Your task to perform on an android device: Search for sushi restaurants on Maps Image 0: 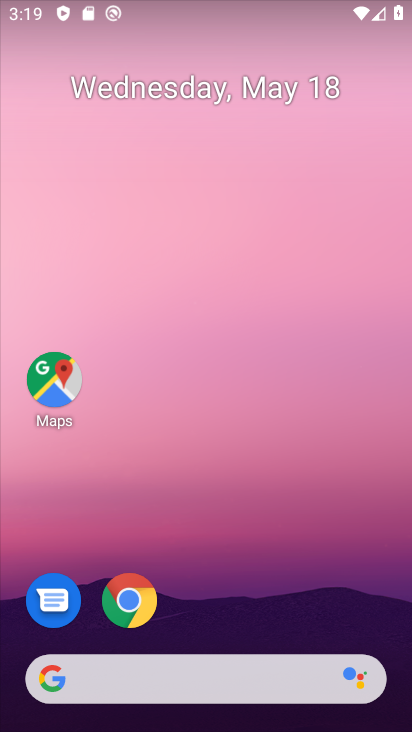
Step 0: click (54, 379)
Your task to perform on an android device: Search for sushi restaurants on Maps Image 1: 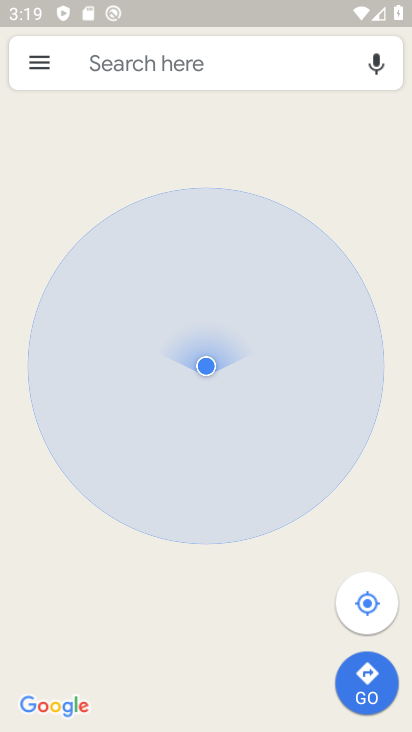
Step 1: click (176, 66)
Your task to perform on an android device: Search for sushi restaurants on Maps Image 2: 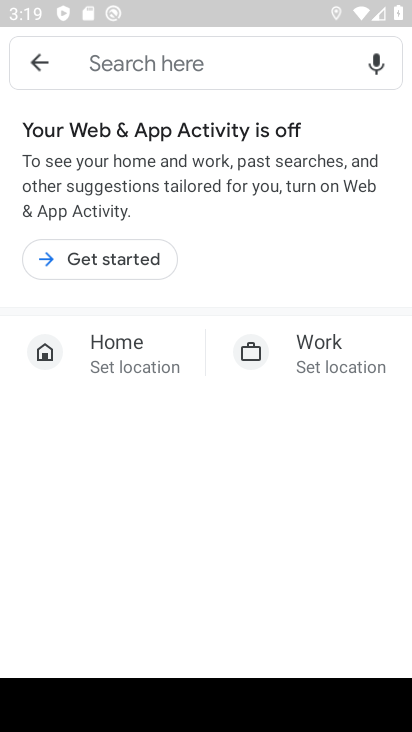
Step 2: type "sushi restaurants"
Your task to perform on an android device: Search for sushi restaurants on Maps Image 3: 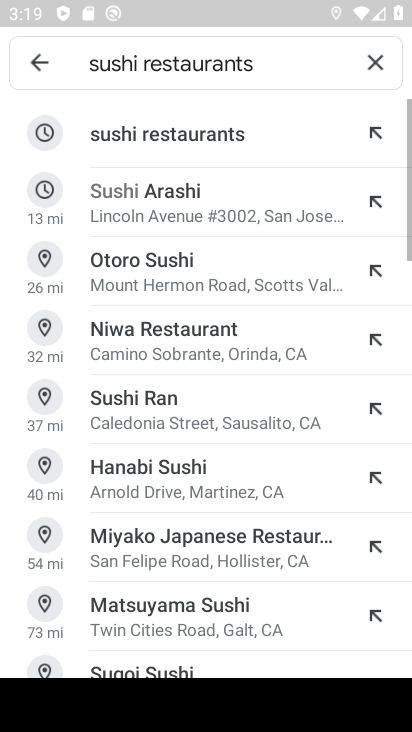
Step 3: click (192, 132)
Your task to perform on an android device: Search for sushi restaurants on Maps Image 4: 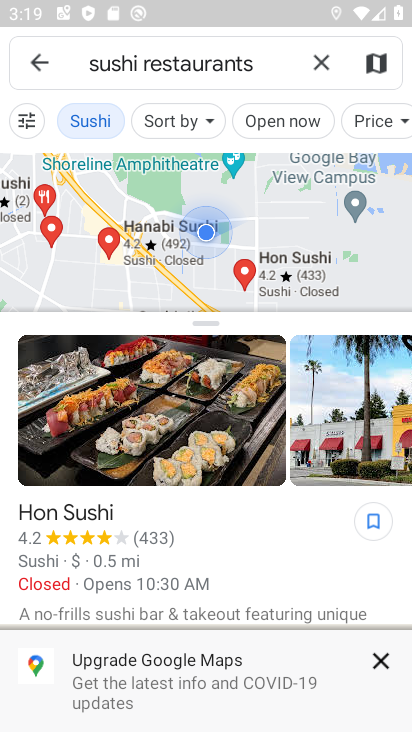
Step 4: task complete